Your task to perform on an android device: Open ESPN.com Image 0: 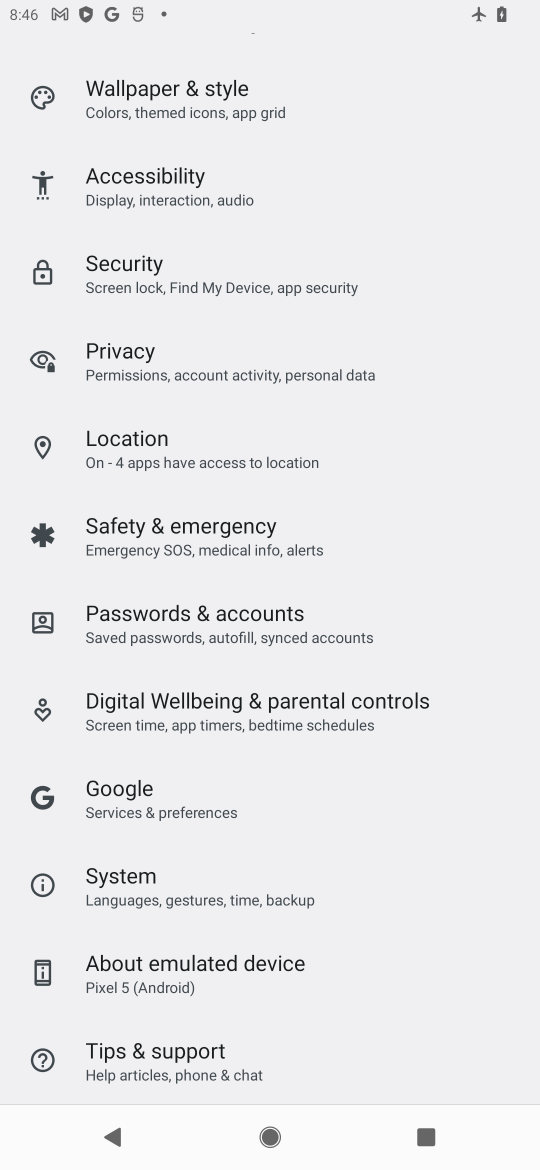
Step 0: press home button
Your task to perform on an android device: Open ESPN.com Image 1: 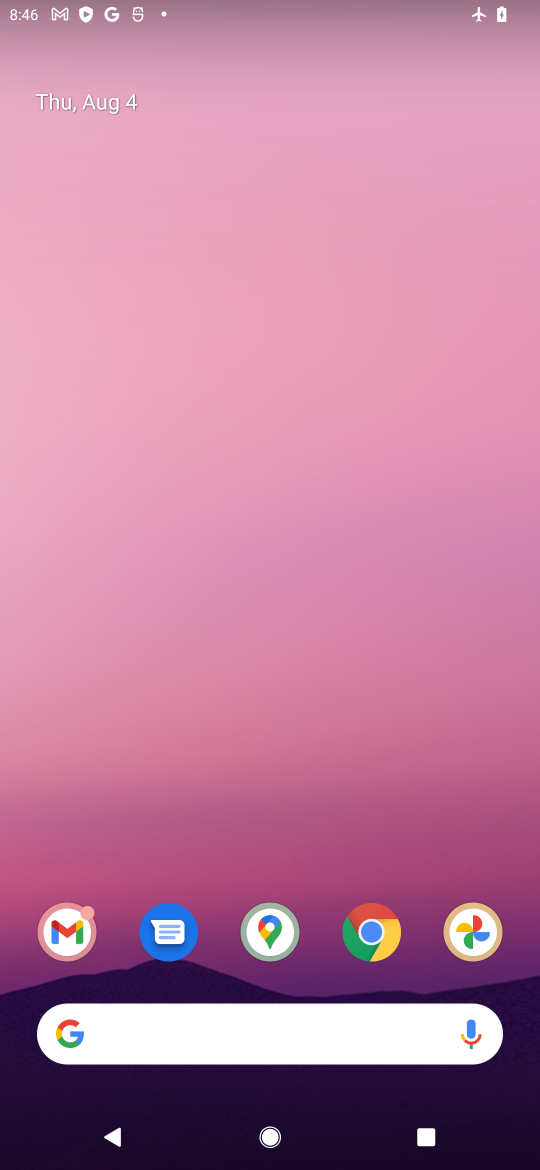
Step 1: click (369, 936)
Your task to perform on an android device: Open ESPN.com Image 2: 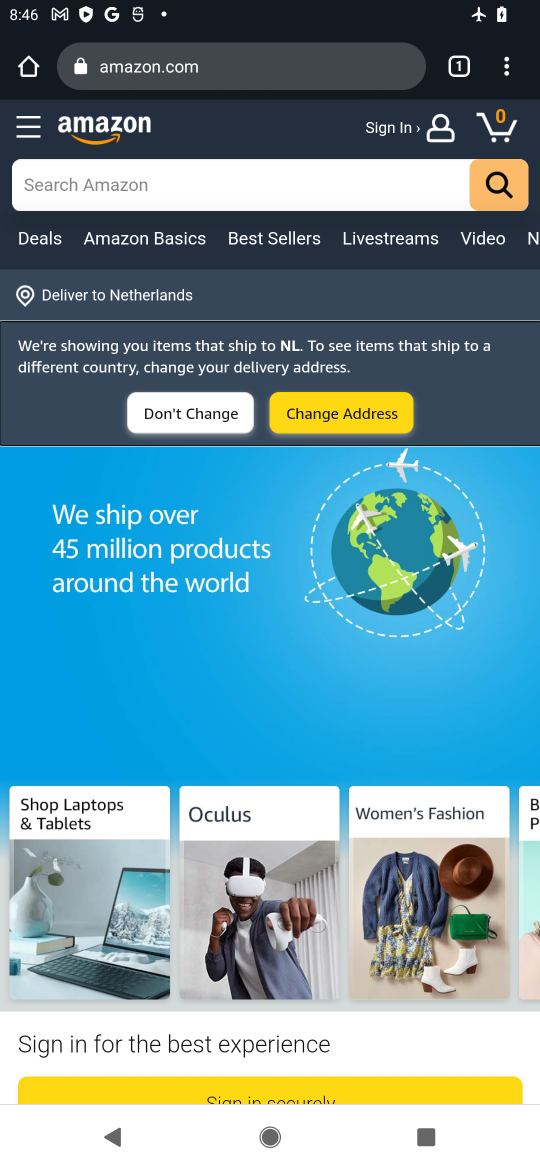
Step 2: press back button
Your task to perform on an android device: Open ESPN.com Image 3: 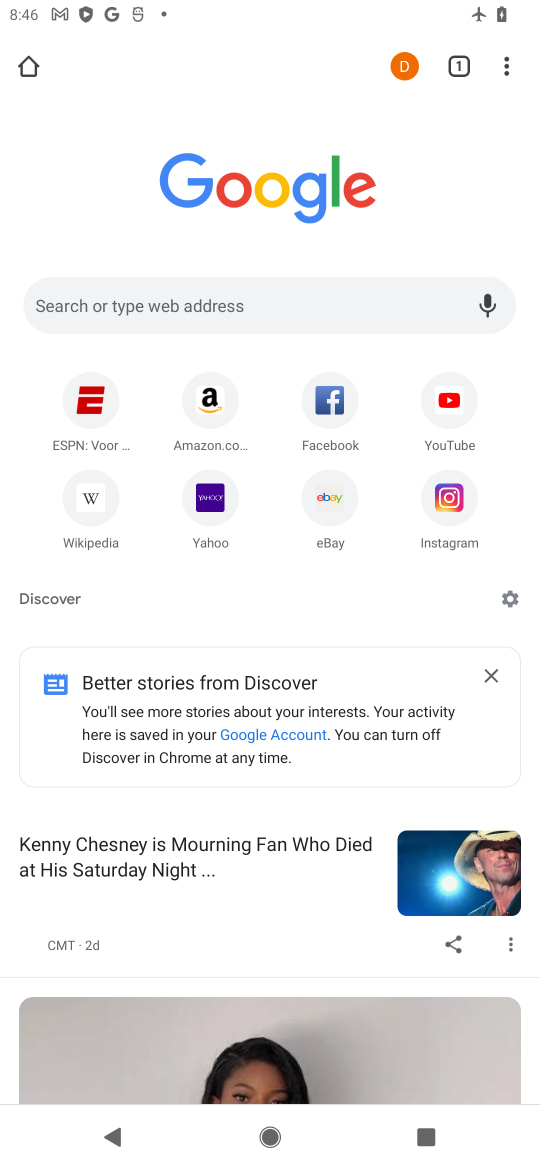
Step 3: click (82, 417)
Your task to perform on an android device: Open ESPN.com Image 4: 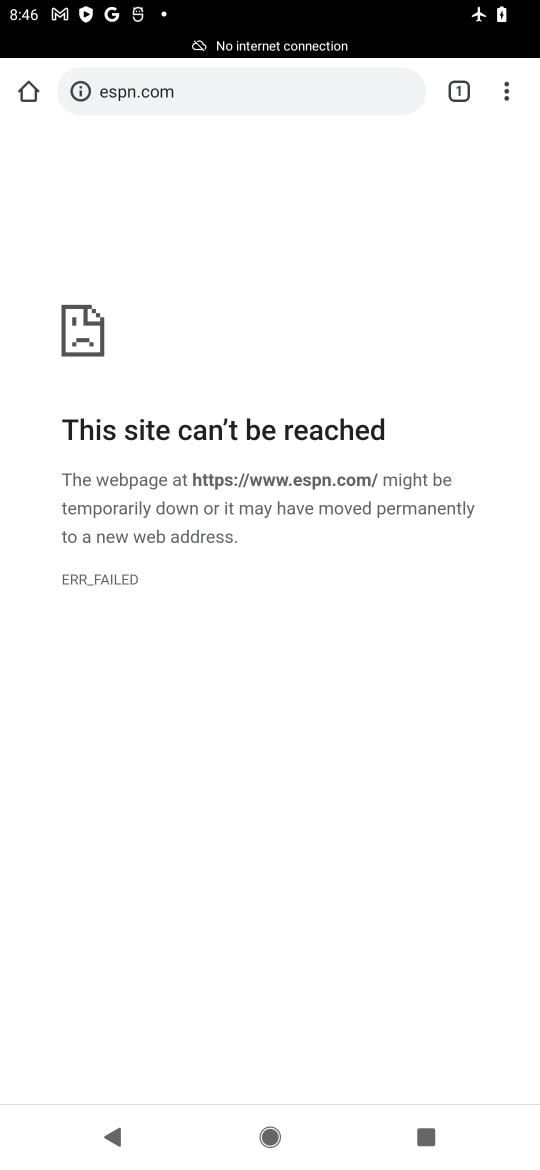
Step 4: task complete